Your task to perform on an android device: all mails in gmail Image 0: 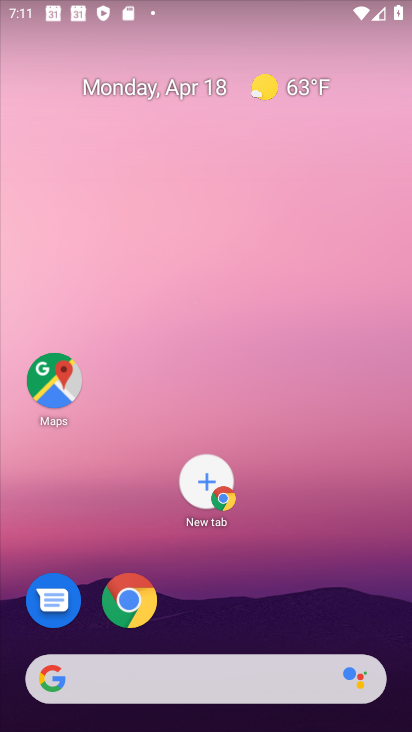
Step 0: drag from (283, 581) to (280, 3)
Your task to perform on an android device: all mails in gmail Image 1: 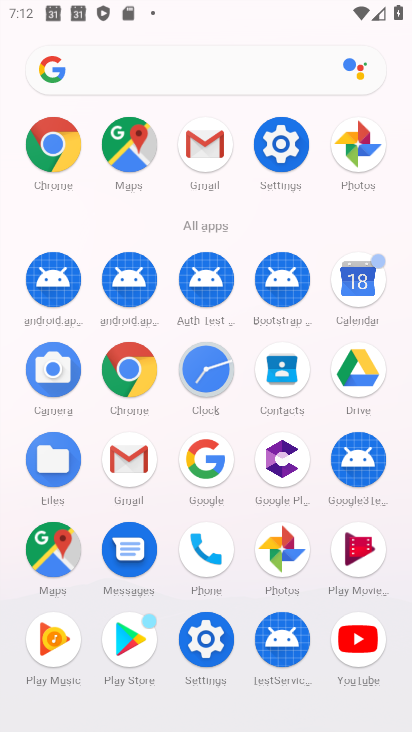
Step 1: click (203, 145)
Your task to perform on an android device: all mails in gmail Image 2: 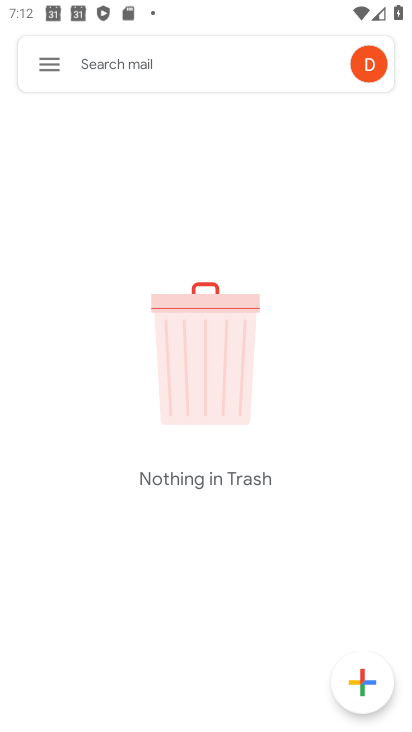
Step 2: click (54, 65)
Your task to perform on an android device: all mails in gmail Image 3: 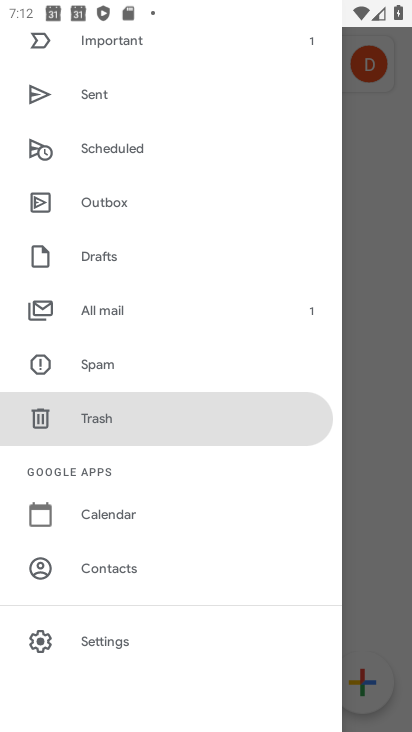
Step 3: click (100, 314)
Your task to perform on an android device: all mails in gmail Image 4: 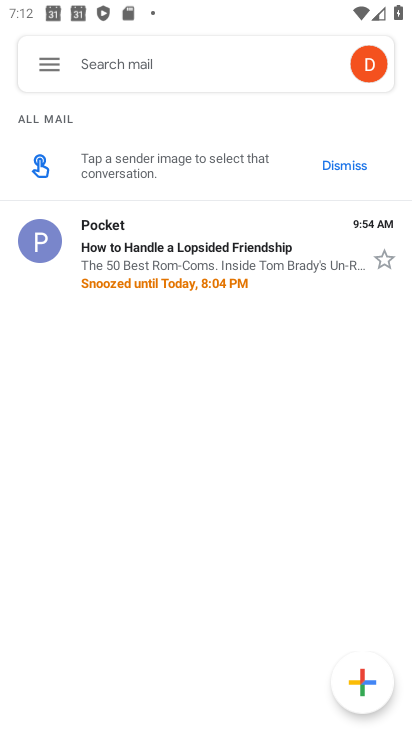
Step 4: task complete